Your task to perform on an android device: What is the speed of a train? Image 0: 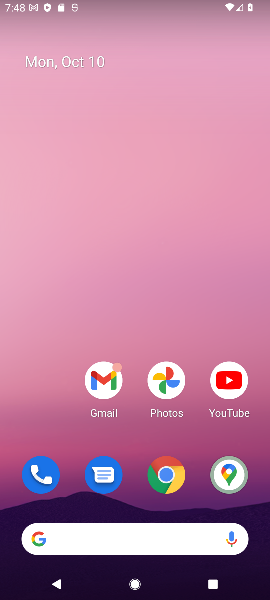
Step 0: click (172, 467)
Your task to perform on an android device: What is the speed of a train? Image 1: 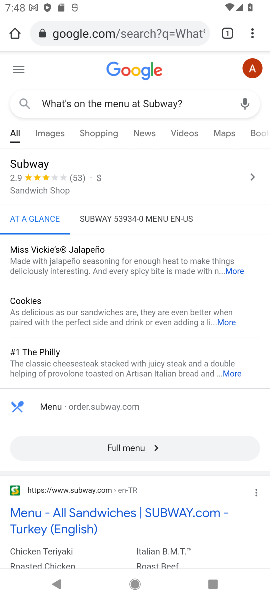
Step 1: click (80, 23)
Your task to perform on an android device: What is the speed of a train? Image 2: 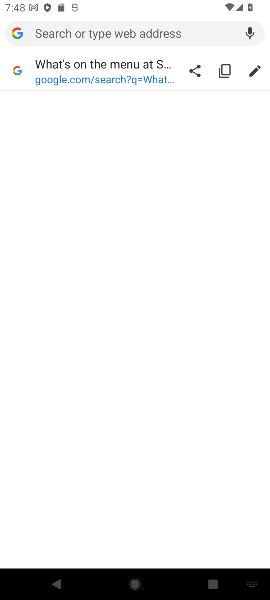
Step 2: type "What is the speed of a train?"
Your task to perform on an android device: What is the speed of a train? Image 3: 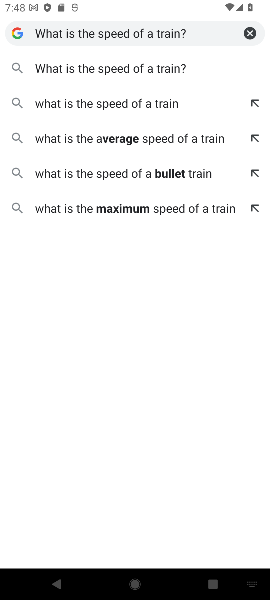
Step 3: click (129, 69)
Your task to perform on an android device: What is the speed of a train? Image 4: 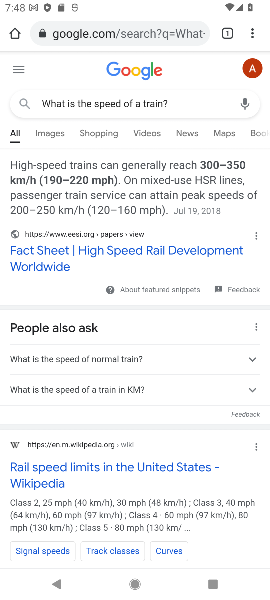
Step 4: task complete